Your task to perform on an android device: move an email to a new category in the gmail app Image 0: 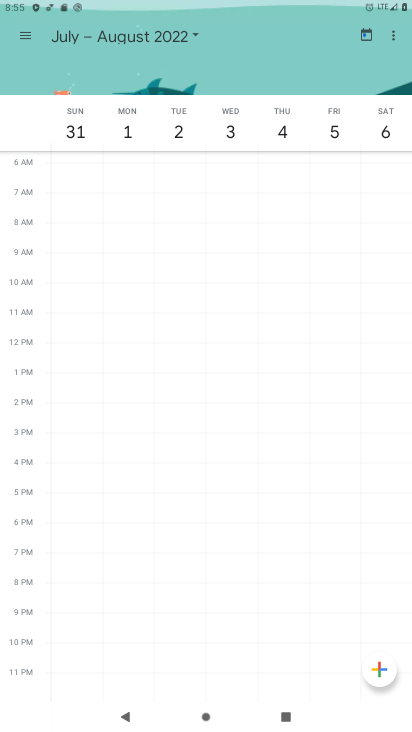
Step 0: press home button
Your task to perform on an android device: move an email to a new category in the gmail app Image 1: 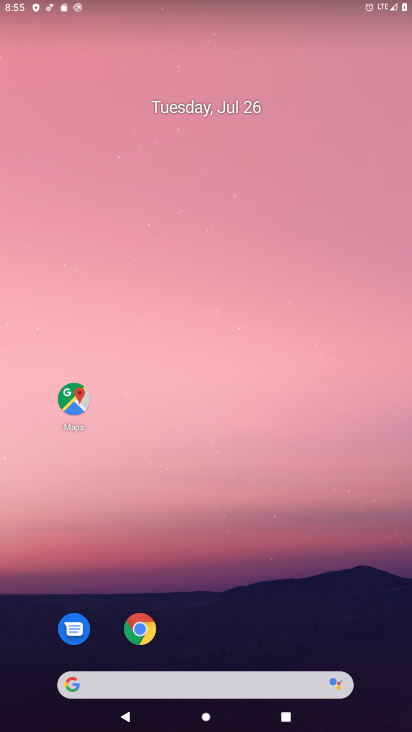
Step 1: drag from (214, 654) to (216, 99)
Your task to perform on an android device: move an email to a new category in the gmail app Image 2: 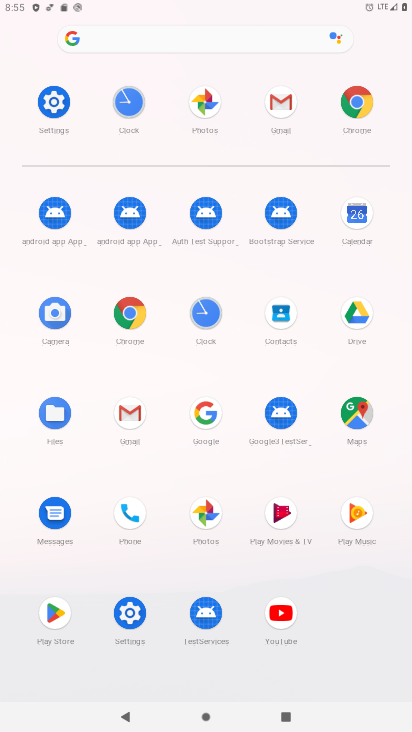
Step 2: click (139, 408)
Your task to perform on an android device: move an email to a new category in the gmail app Image 3: 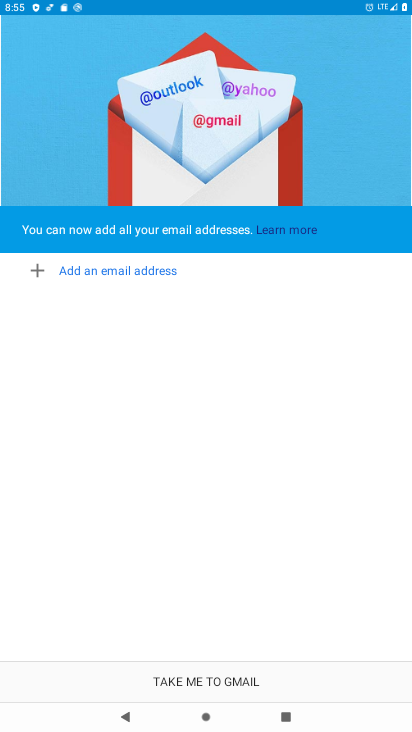
Step 3: click (284, 683)
Your task to perform on an android device: move an email to a new category in the gmail app Image 4: 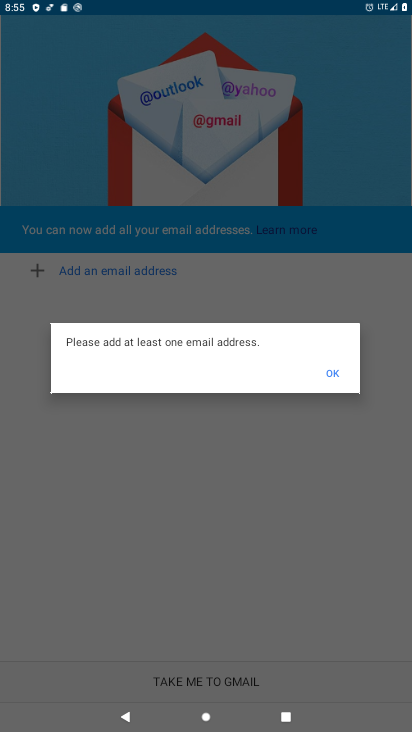
Step 4: task complete